Your task to perform on an android device: turn off improve location accuracy Image 0: 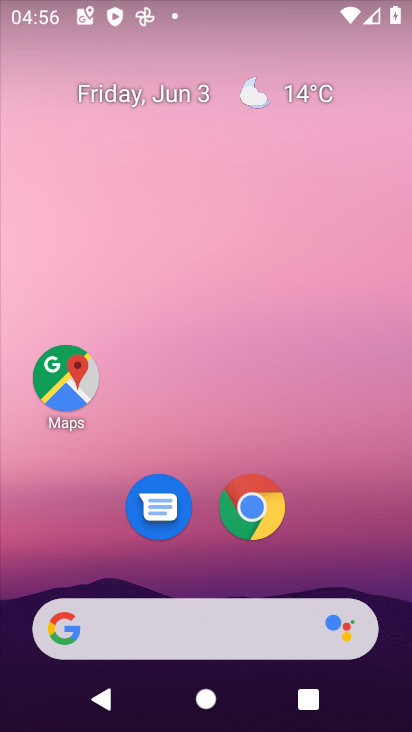
Step 0: press home button
Your task to perform on an android device: turn off improve location accuracy Image 1: 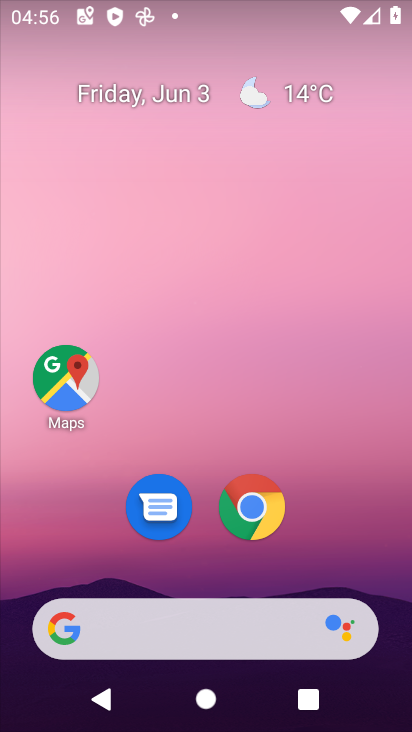
Step 1: drag from (356, 531) to (372, 15)
Your task to perform on an android device: turn off improve location accuracy Image 2: 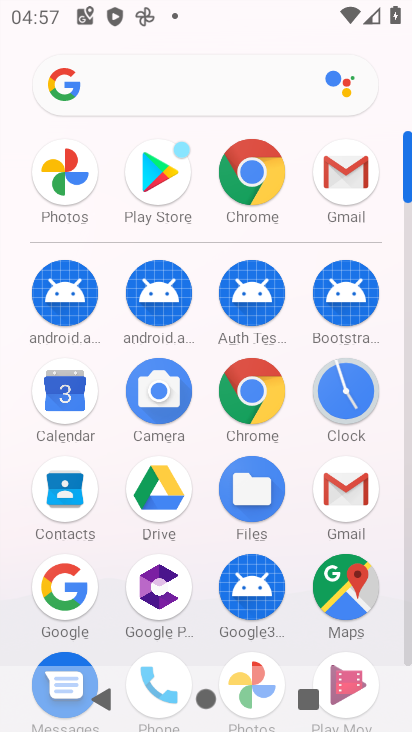
Step 2: drag from (110, 624) to (109, 278)
Your task to perform on an android device: turn off improve location accuracy Image 3: 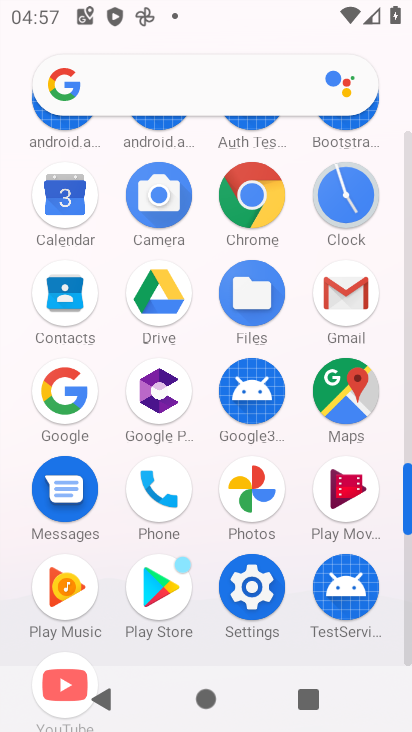
Step 3: click (249, 611)
Your task to perform on an android device: turn off improve location accuracy Image 4: 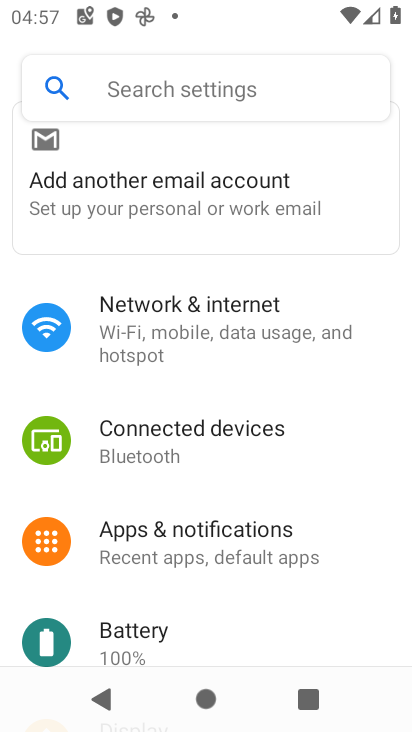
Step 4: drag from (267, 606) to (331, 37)
Your task to perform on an android device: turn off improve location accuracy Image 5: 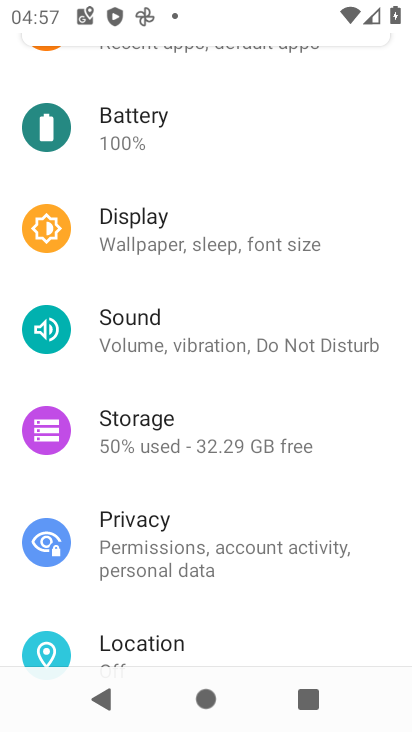
Step 5: click (233, 607)
Your task to perform on an android device: turn off improve location accuracy Image 6: 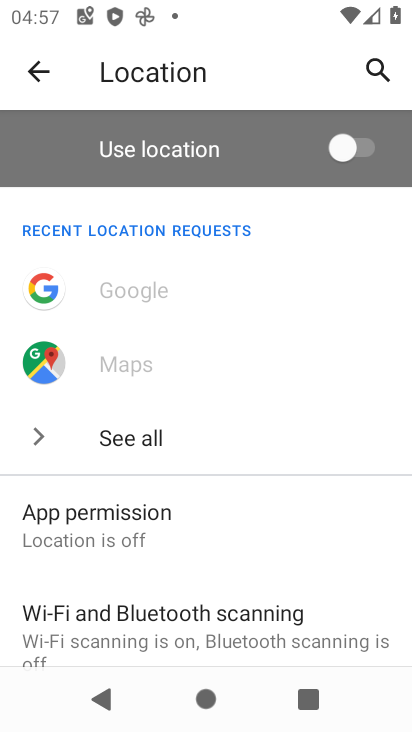
Step 6: drag from (265, 559) to (237, 179)
Your task to perform on an android device: turn off improve location accuracy Image 7: 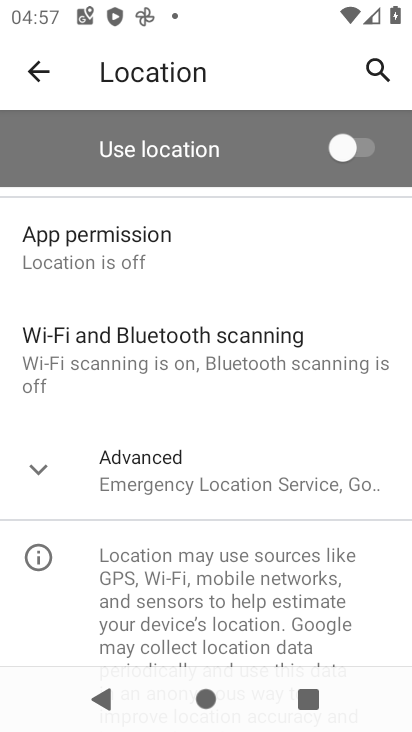
Step 7: click (30, 469)
Your task to perform on an android device: turn off improve location accuracy Image 8: 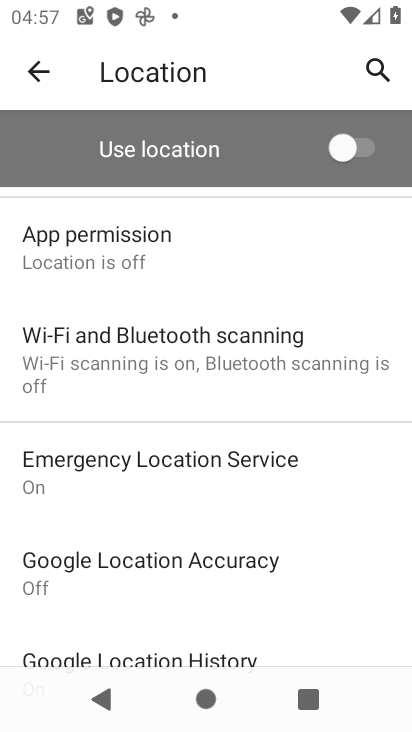
Step 8: click (227, 567)
Your task to perform on an android device: turn off improve location accuracy Image 9: 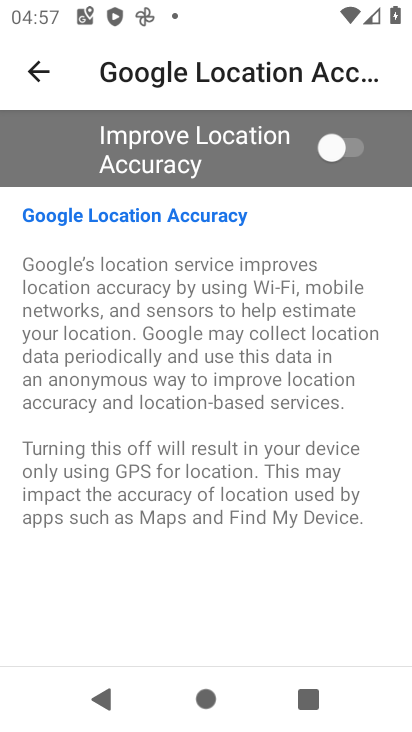
Step 9: task complete